Your task to perform on an android device: toggle sleep mode Image 0: 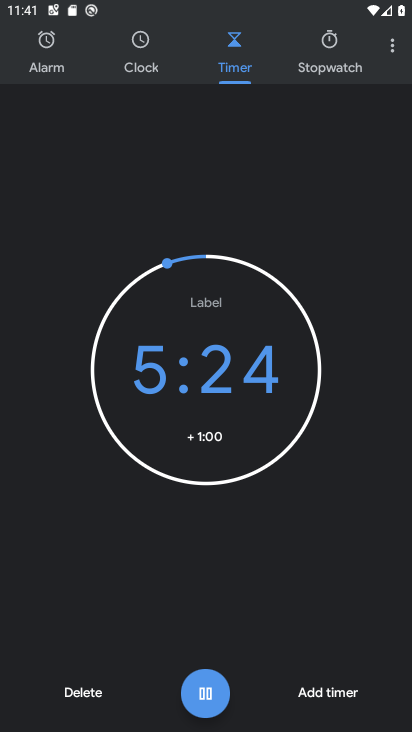
Step 0: press home button
Your task to perform on an android device: toggle sleep mode Image 1: 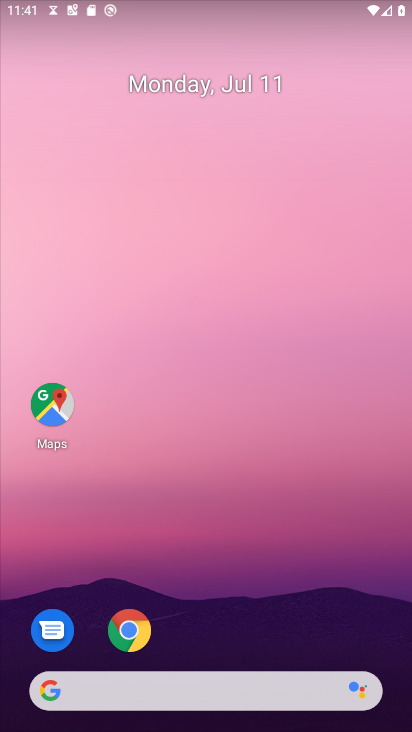
Step 1: drag from (205, 587) to (278, 18)
Your task to perform on an android device: toggle sleep mode Image 2: 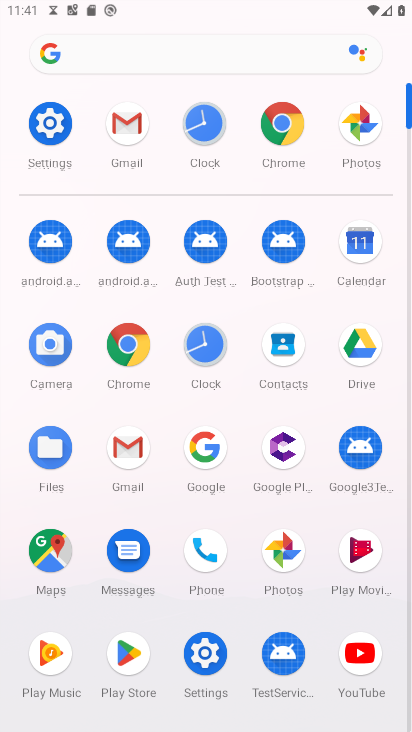
Step 2: click (210, 647)
Your task to perform on an android device: toggle sleep mode Image 3: 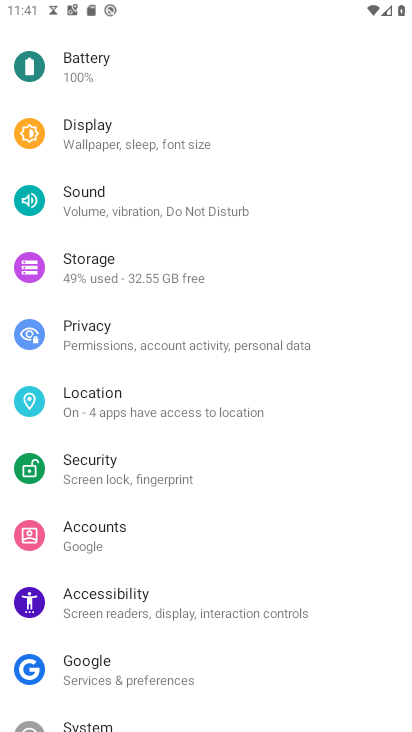
Step 3: drag from (133, 268) to (126, 579)
Your task to perform on an android device: toggle sleep mode Image 4: 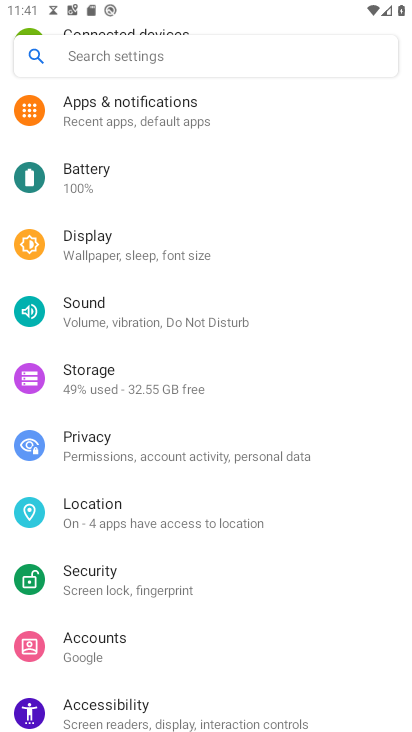
Step 4: click (229, 56)
Your task to perform on an android device: toggle sleep mode Image 5: 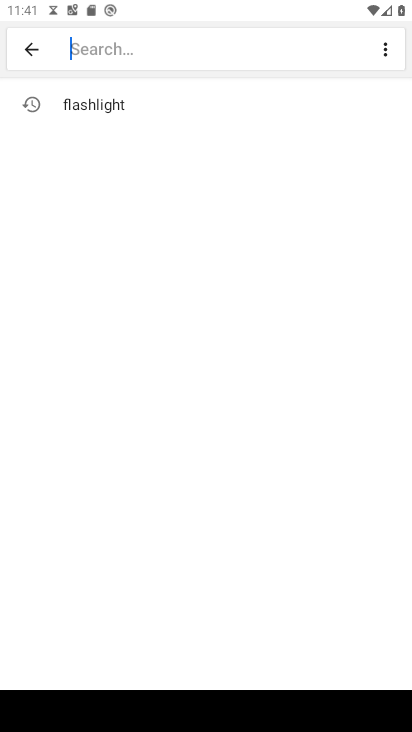
Step 5: type "sleep mode"
Your task to perform on an android device: toggle sleep mode Image 6: 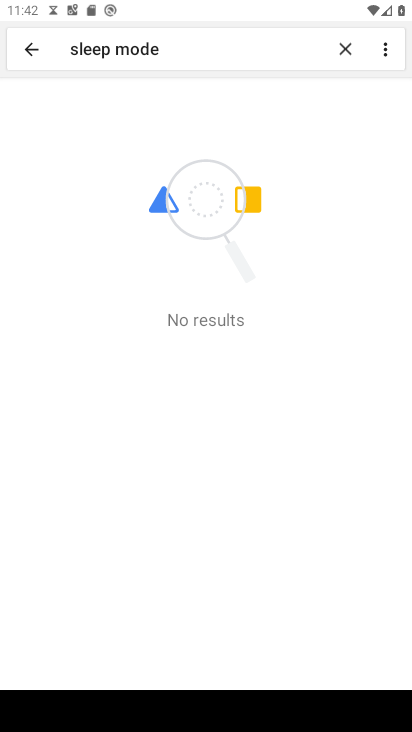
Step 6: task complete